Your task to perform on an android device: change notifications settings Image 0: 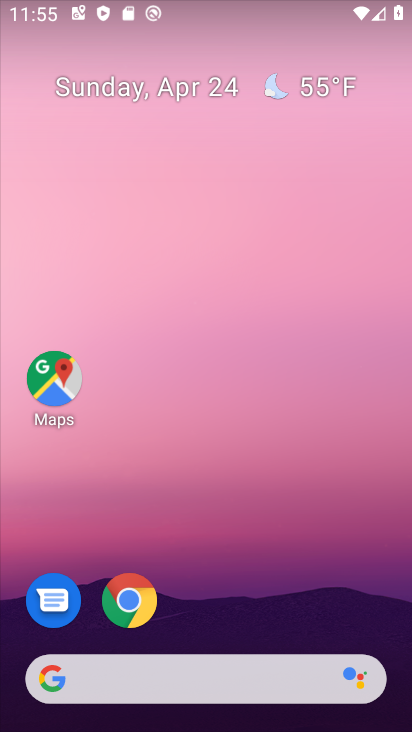
Step 0: drag from (215, 631) to (359, 32)
Your task to perform on an android device: change notifications settings Image 1: 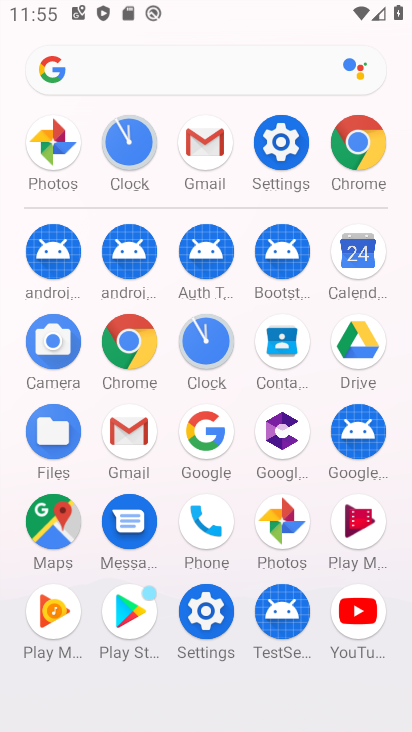
Step 1: click (215, 605)
Your task to perform on an android device: change notifications settings Image 2: 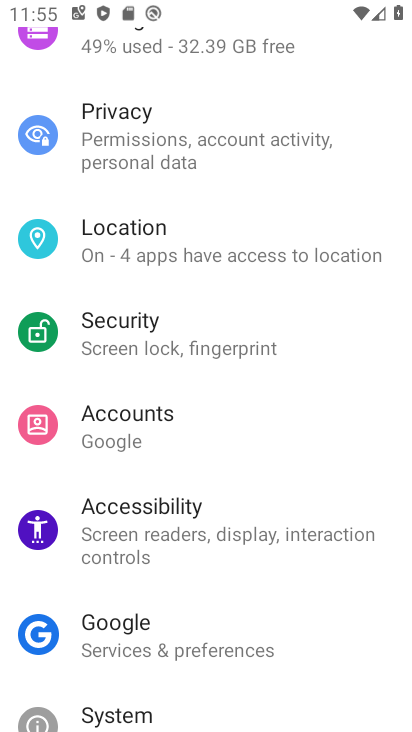
Step 2: drag from (193, 159) to (127, 634)
Your task to perform on an android device: change notifications settings Image 3: 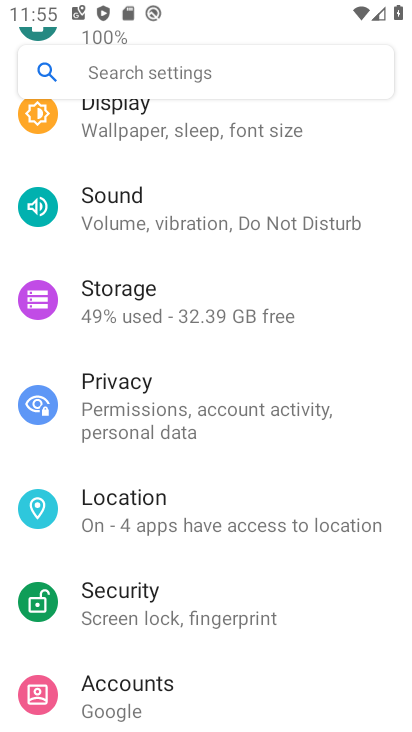
Step 3: drag from (193, 295) to (177, 618)
Your task to perform on an android device: change notifications settings Image 4: 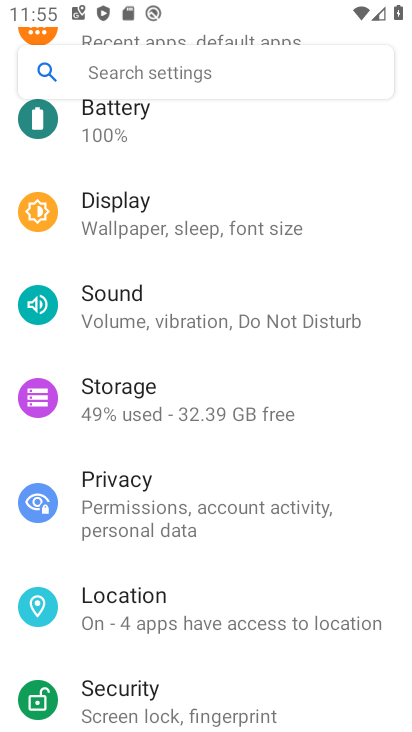
Step 4: drag from (179, 245) to (106, 696)
Your task to perform on an android device: change notifications settings Image 5: 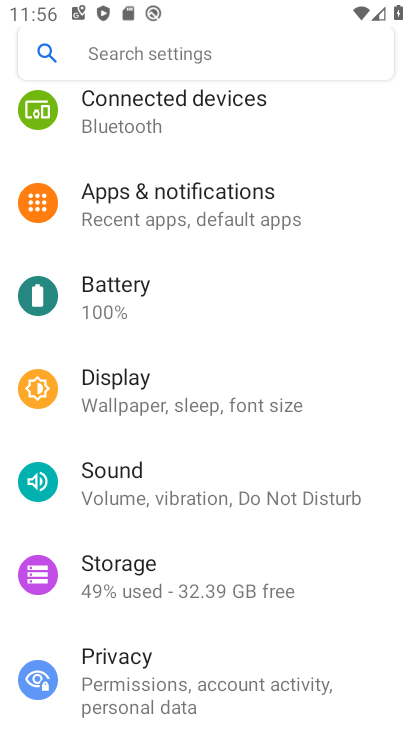
Step 5: click (269, 225)
Your task to perform on an android device: change notifications settings Image 6: 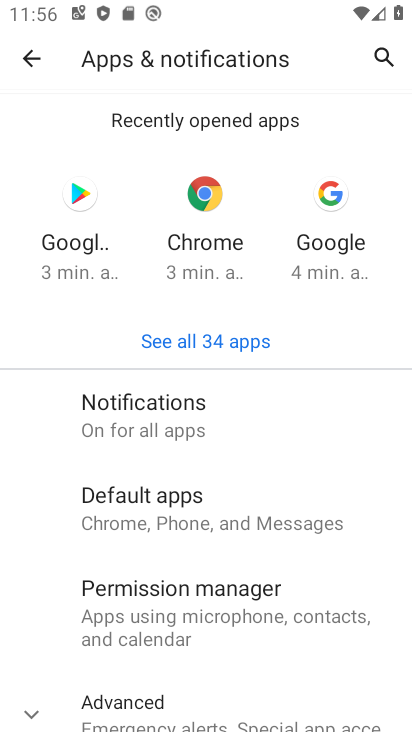
Step 6: drag from (162, 618) to (180, 151)
Your task to perform on an android device: change notifications settings Image 7: 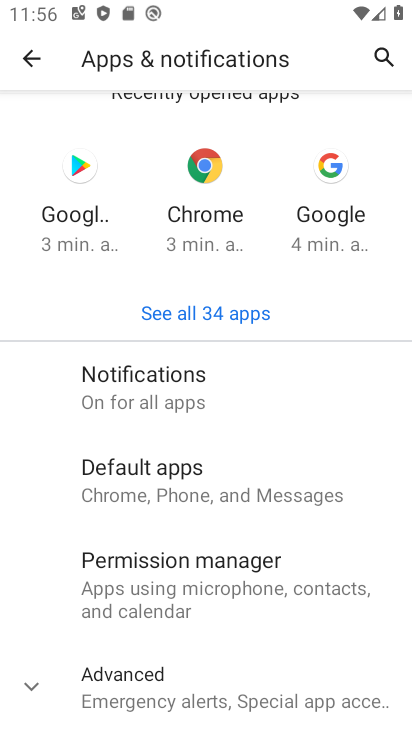
Step 7: click (204, 694)
Your task to perform on an android device: change notifications settings Image 8: 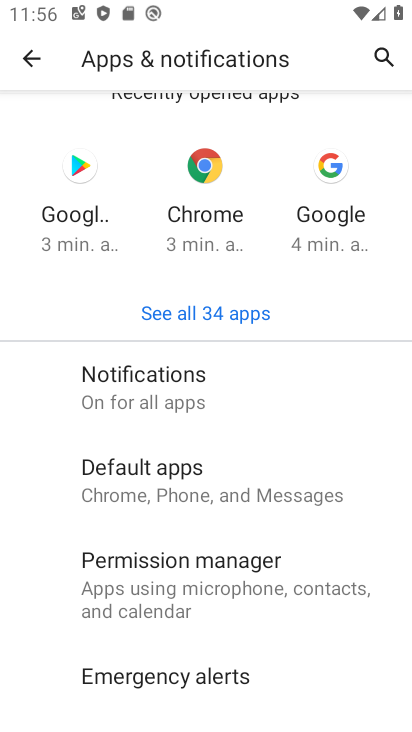
Step 8: task complete